Your task to perform on an android device: Add corsair k70 to the cart on amazon.com, then select checkout. Image 0: 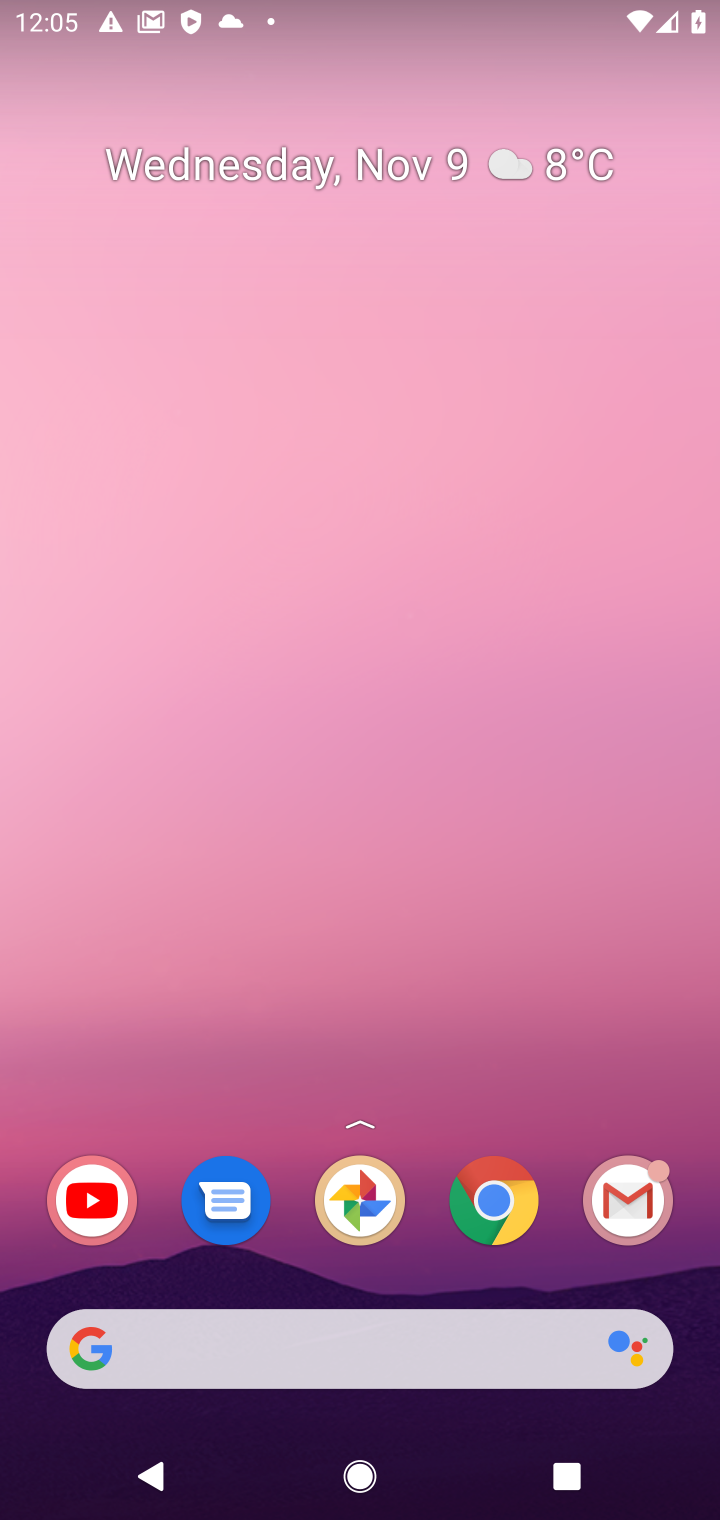
Step 0: task complete